Your task to perform on an android device: check storage Image 0: 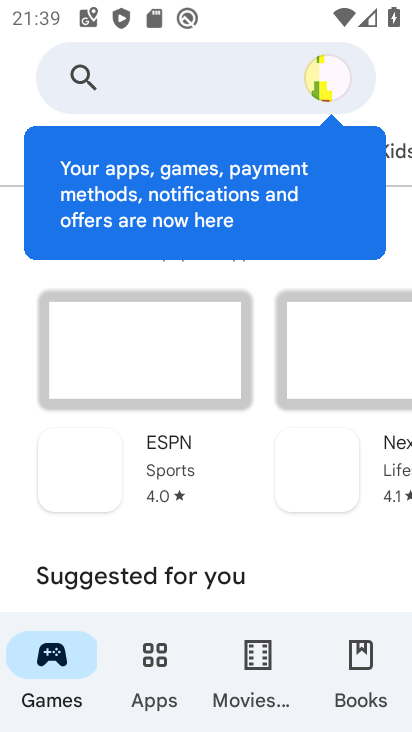
Step 0: press home button
Your task to perform on an android device: check storage Image 1: 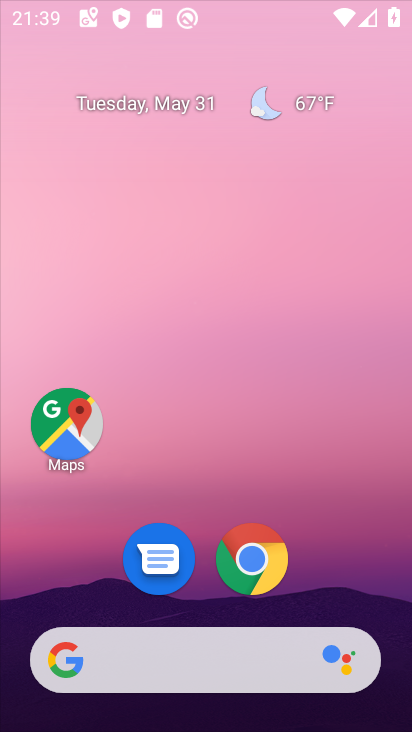
Step 1: drag from (294, 522) to (307, 78)
Your task to perform on an android device: check storage Image 2: 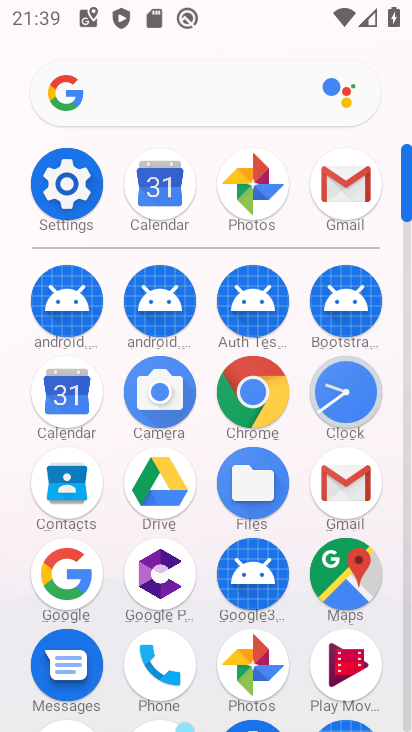
Step 2: click (66, 189)
Your task to perform on an android device: check storage Image 3: 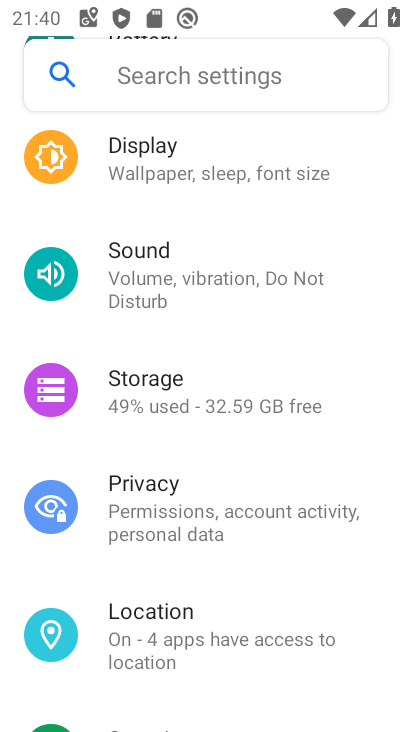
Step 3: click (145, 372)
Your task to perform on an android device: check storage Image 4: 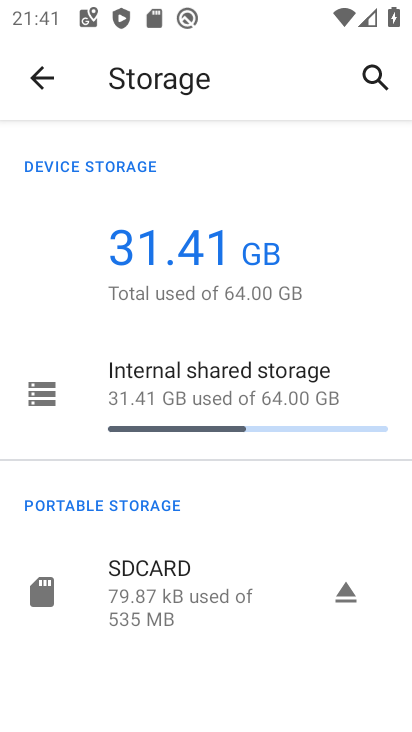
Step 4: task complete